Your task to perform on an android device: What's the news this month? Image 0: 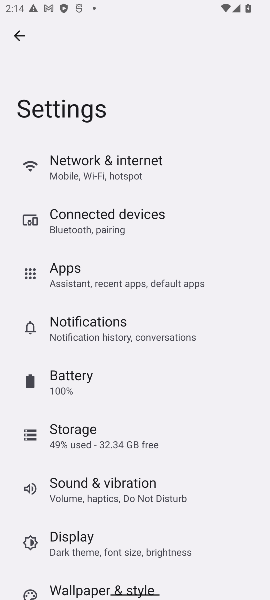
Step 0: press home button
Your task to perform on an android device: What's the news this month? Image 1: 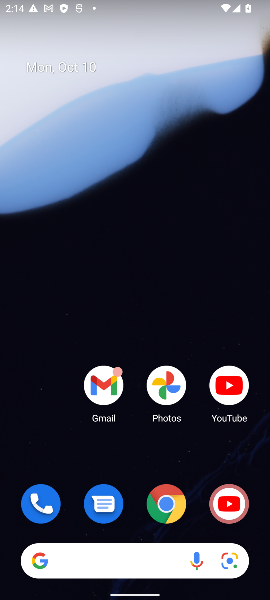
Step 1: drag from (149, 495) to (129, 114)
Your task to perform on an android device: What's the news this month? Image 2: 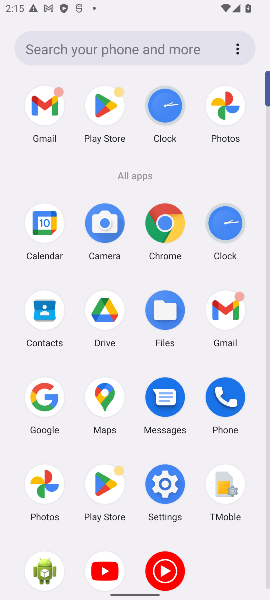
Step 2: click (172, 221)
Your task to perform on an android device: What's the news this month? Image 3: 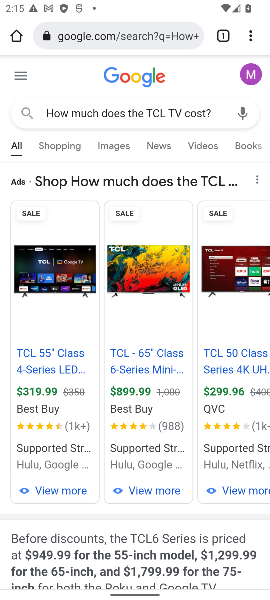
Step 3: press back button
Your task to perform on an android device: What's the news this month? Image 4: 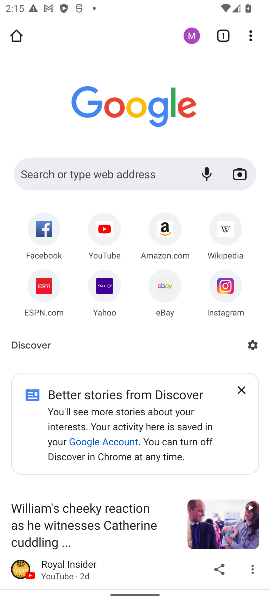
Step 4: drag from (149, 429) to (107, 168)
Your task to perform on an android device: What's the news this month? Image 5: 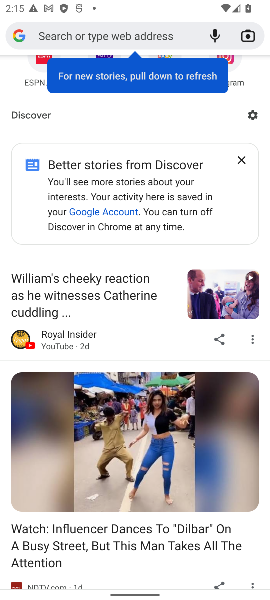
Step 5: drag from (123, 419) to (124, 178)
Your task to perform on an android device: What's the news this month? Image 6: 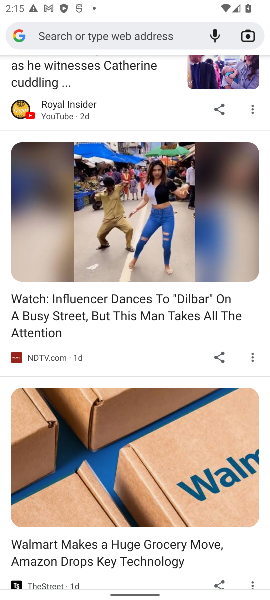
Step 6: click (124, 178)
Your task to perform on an android device: What's the news this month? Image 7: 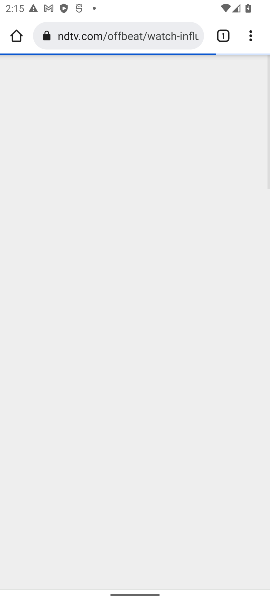
Step 7: task complete